Your task to perform on an android device: visit the assistant section in the google photos Image 0: 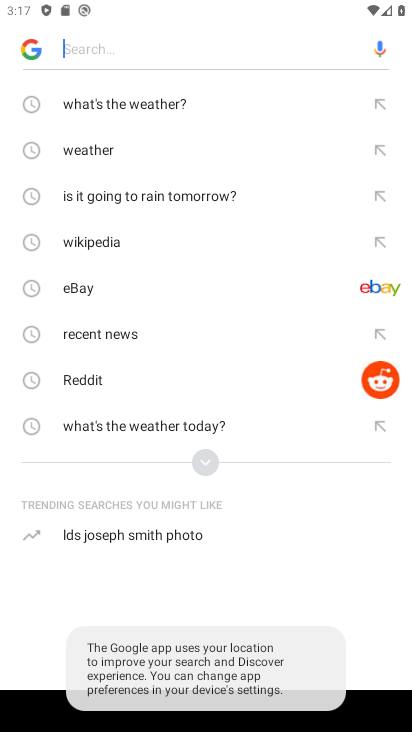
Step 0: press home button
Your task to perform on an android device: visit the assistant section in the google photos Image 1: 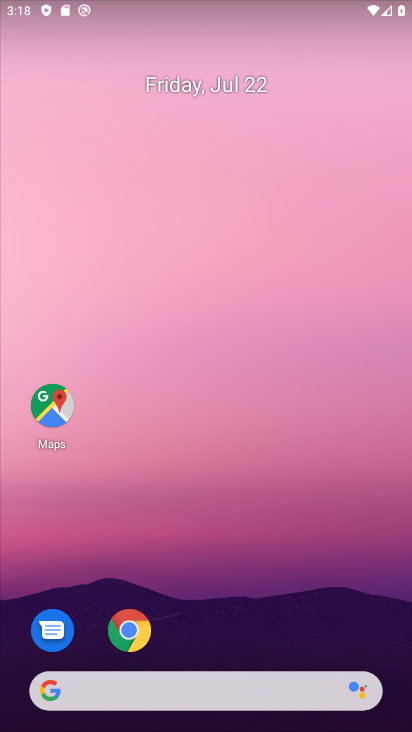
Step 1: drag from (285, 624) to (198, 283)
Your task to perform on an android device: visit the assistant section in the google photos Image 2: 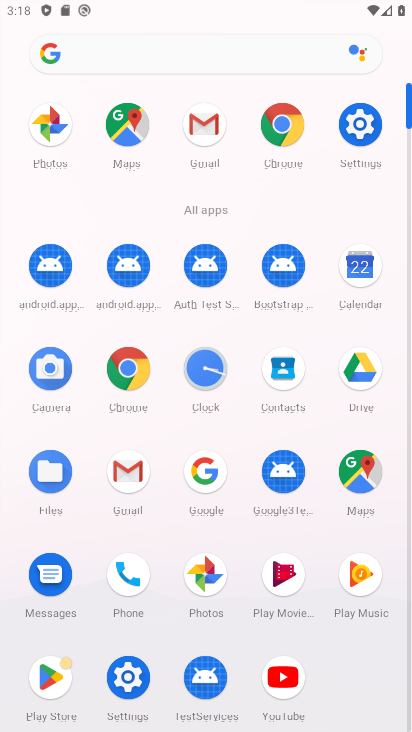
Step 2: click (55, 123)
Your task to perform on an android device: visit the assistant section in the google photos Image 3: 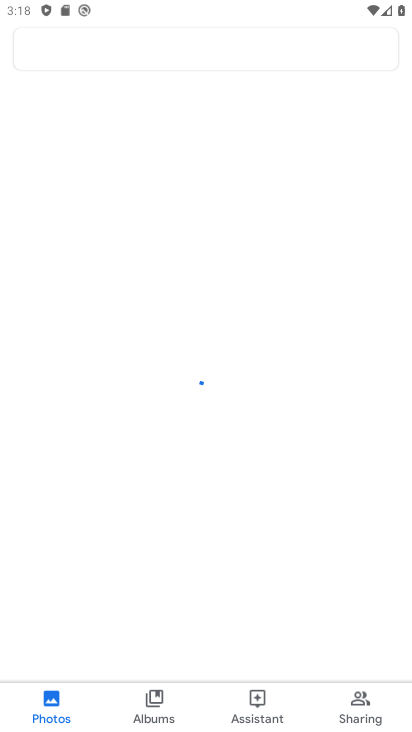
Step 3: click (266, 702)
Your task to perform on an android device: visit the assistant section in the google photos Image 4: 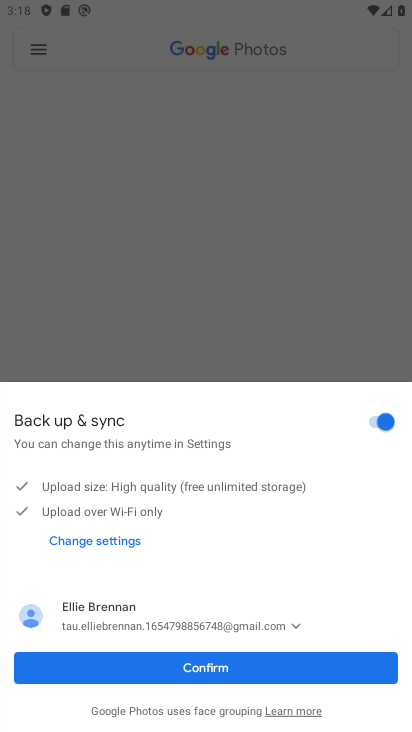
Step 4: click (251, 658)
Your task to perform on an android device: visit the assistant section in the google photos Image 5: 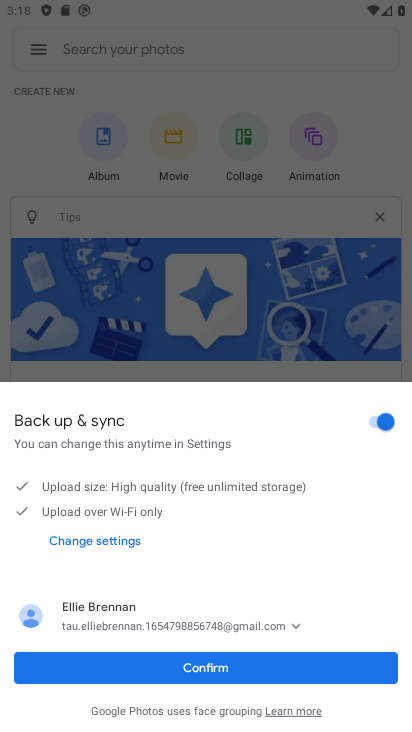
Step 5: click (253, 671)
Your task to perform on an android device: visit the assistant section in the google photos Image 6: 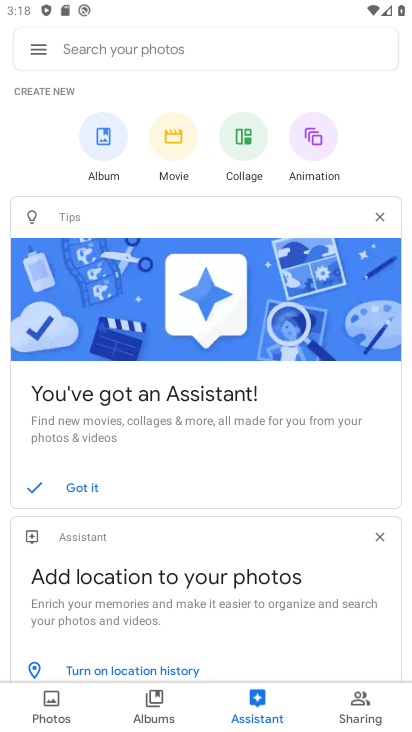
Step 6: task complete